Your task to perform on an android device: Open the web browser Image 0: 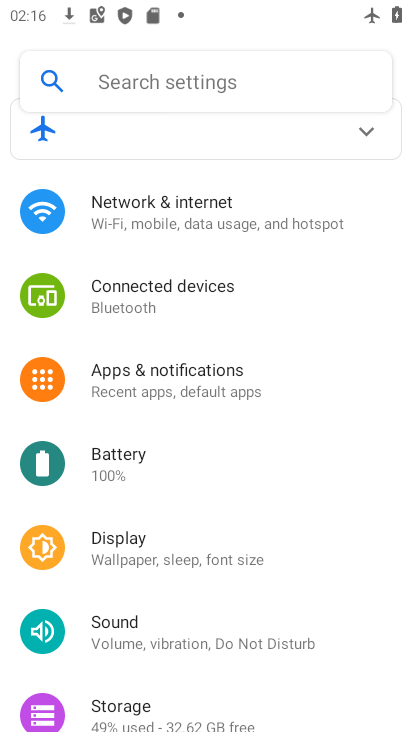
Step 0: press home button
Your task to perform on an android device: Open the web browser Image 1: 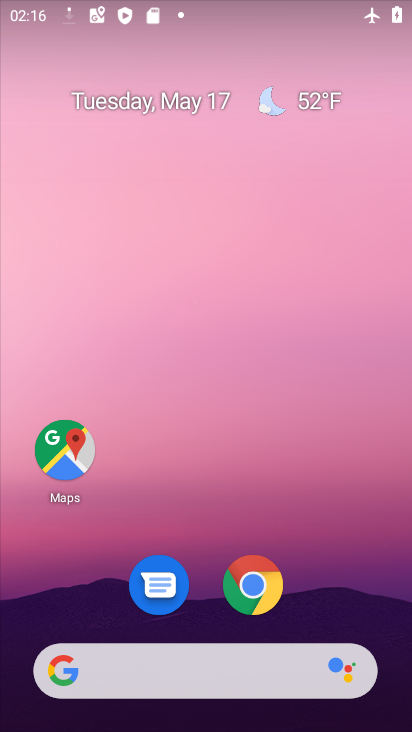
Step 1: click (261, 576)
Your task to perform on an android device: Open the web browser Image 2: 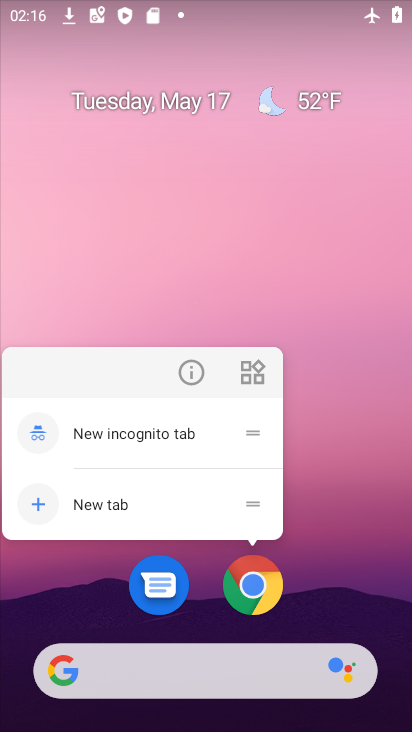
Step 2: click (257, 583)
Your task to perform on an android device: Open the web browser Image 3: 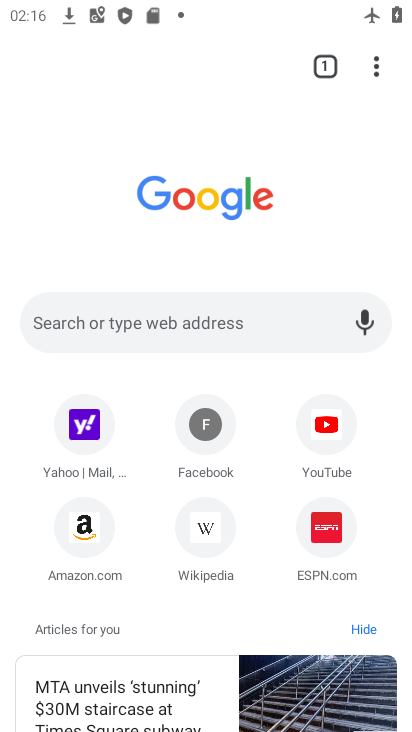
Step 3: task complete